Your task to perform on an android device: set default search engine in the chrome app Image 0: 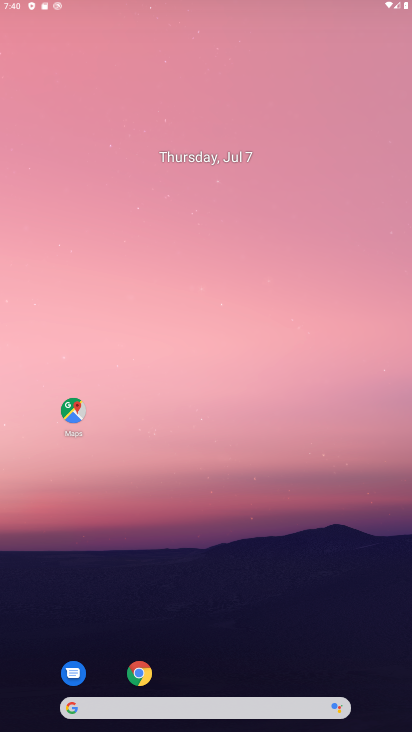
Step 0: press home button
Your task to perform on an android device: set default search engine in the chrome app Image 1: 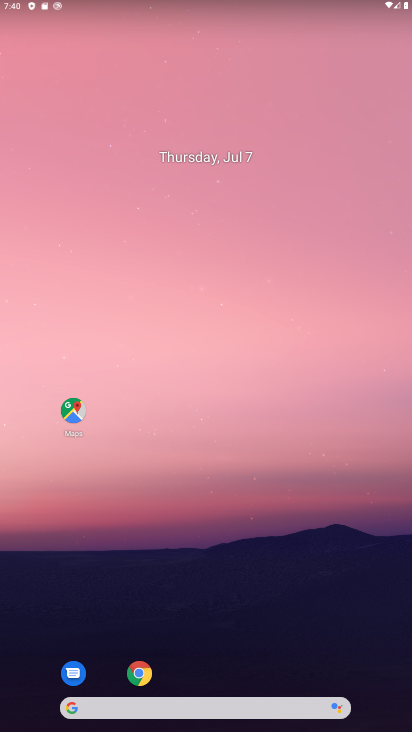
Step 1: click (255, 1)
Your task to perform on an android device: set default search engine in the chrome app Image 2: 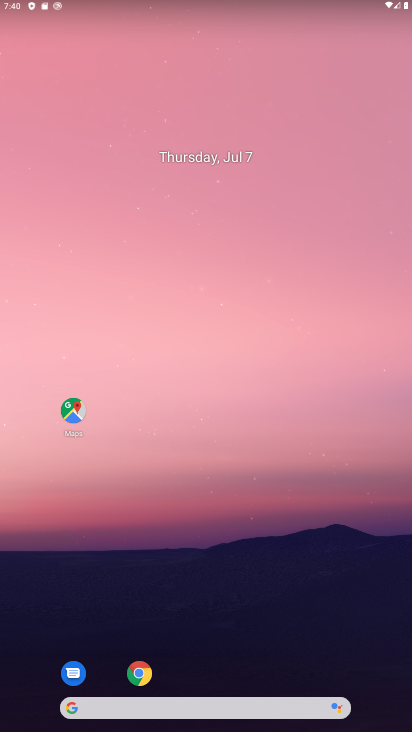
Step 2: drag from (193, 611) to (193, 281)
Your task to perform on an android device: set default search engine in the chrome app Image 3: 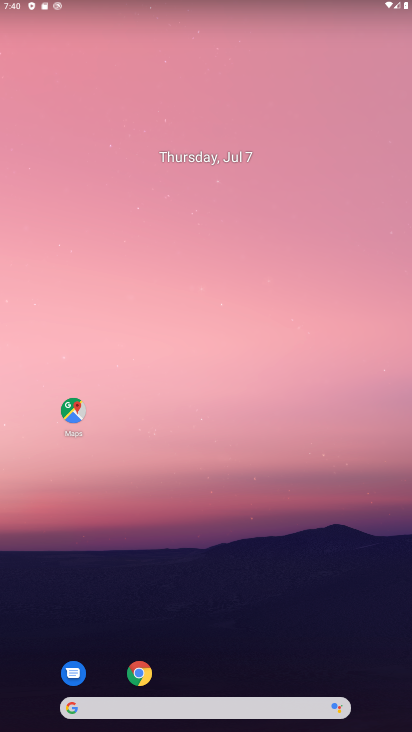
Step 3: click (197, 150)
Your task to perform on an android device: set default search engine in the chrome app Image 4: 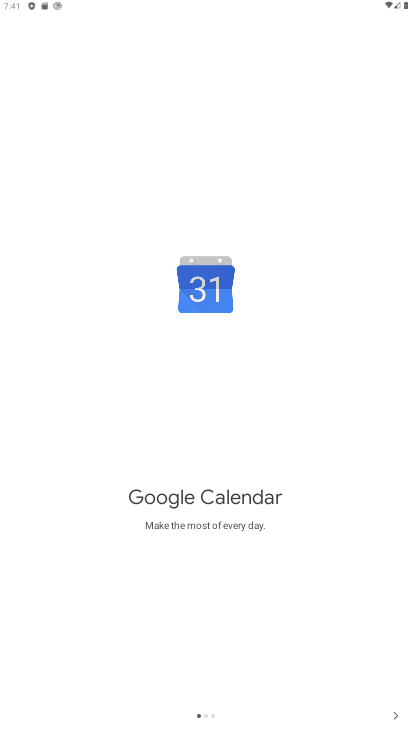
Step 4: click (191, 412)
Your task to perform on an android device: set default search engine in the chrome app Image 5: 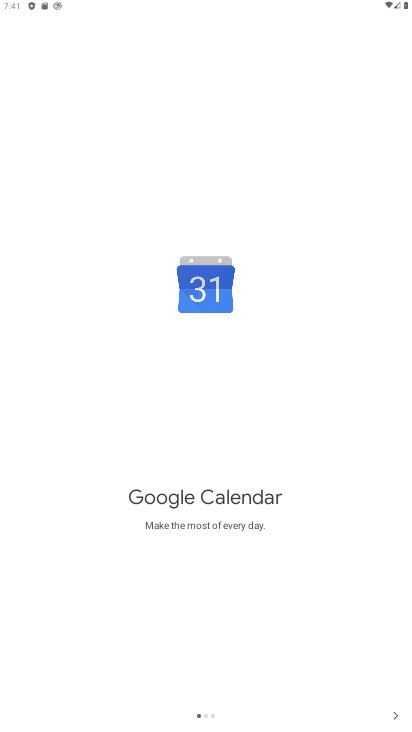
Step 5: press home button
Your task to perform on an android device: set default search engine in the chrome app Image 6: 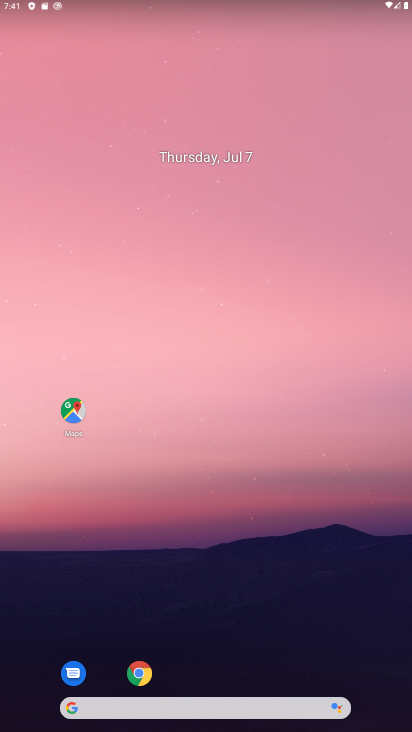
Step 6: click (179, 74)
Your task to perform on an android device: set default search engine in the chrome app Image 7: 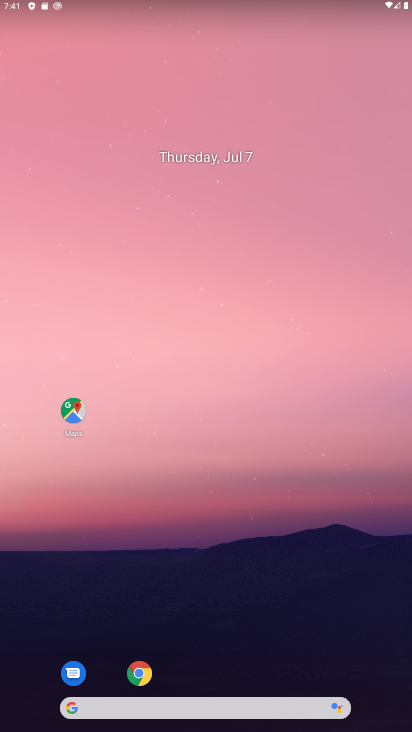
Step 7: drag from (179, 530) to (205, 133)
Your task to perform on an android device: set default search engine in the chrome app Image 8: 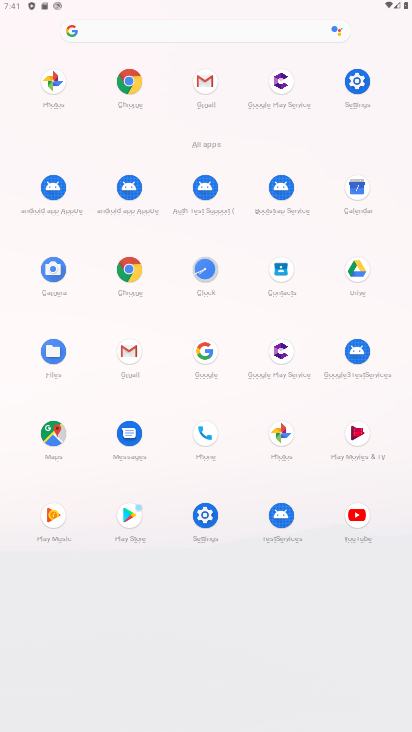
Step 8: click (127, 85)
Your task to perform on an android device: set default search engine in the chrome app Image 9: 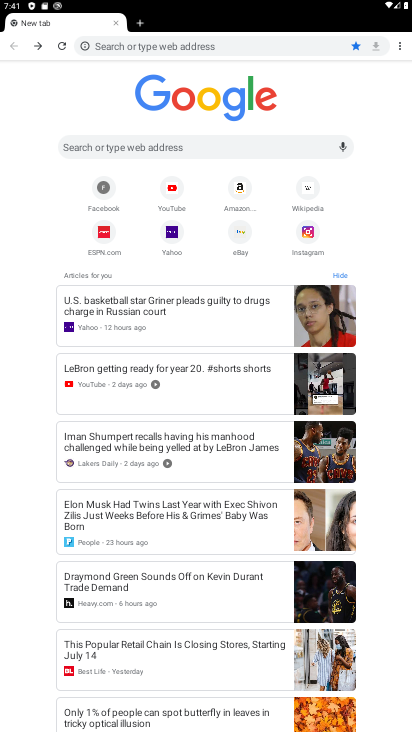
Step 9: click (399, 48)
Your task to perform on an android device: set default search engine in the chrome app Image 10: 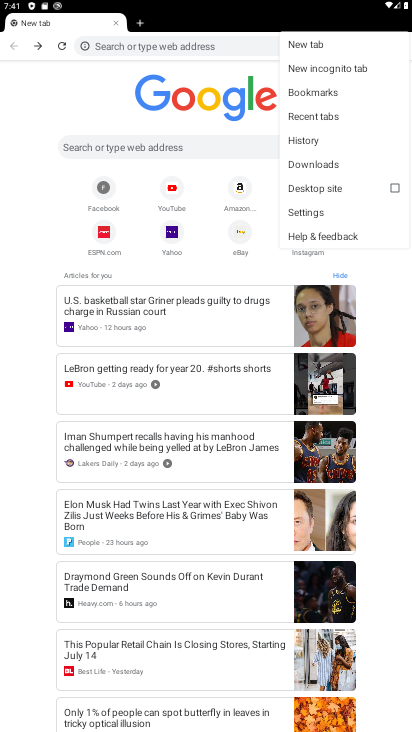
Step 10: click (318, 212)
Your task to perform on an android device: set default search engine in the chrome app Image 11: 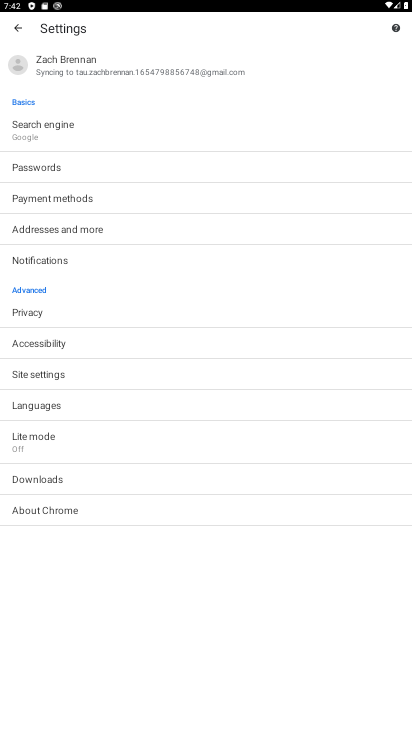
Step 11: click (55, 118)
Your task to perform on an android device: set default search engine in the chrome app Image 12: 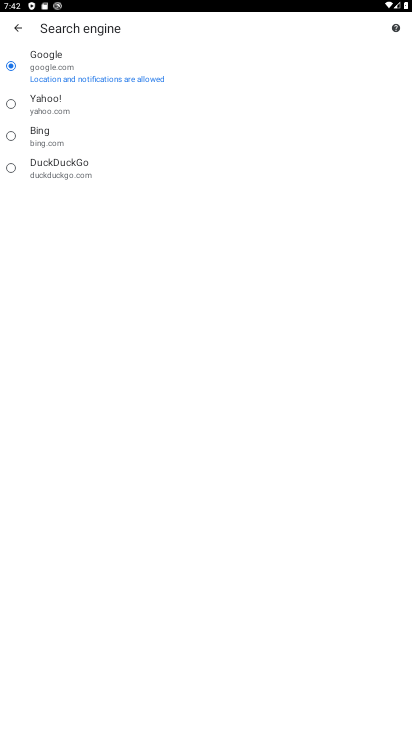
Step 12: click (11, 105)
Your task to perform on an android device: set default search engine in the chrome app Image 13: 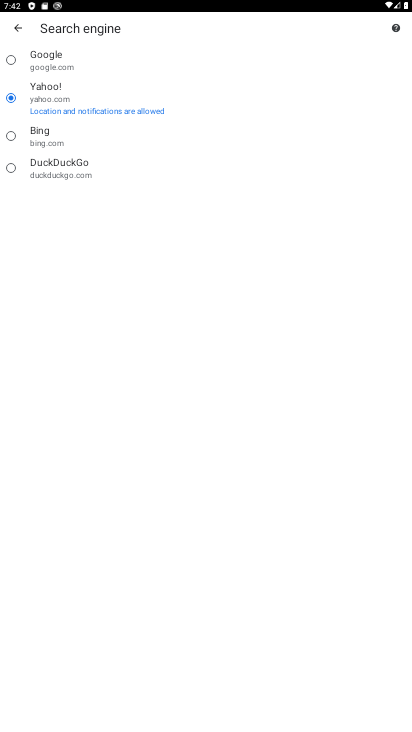
Step 13: task complete